Your task to perform on an android device: delete a single message in the gmail app Image 0: 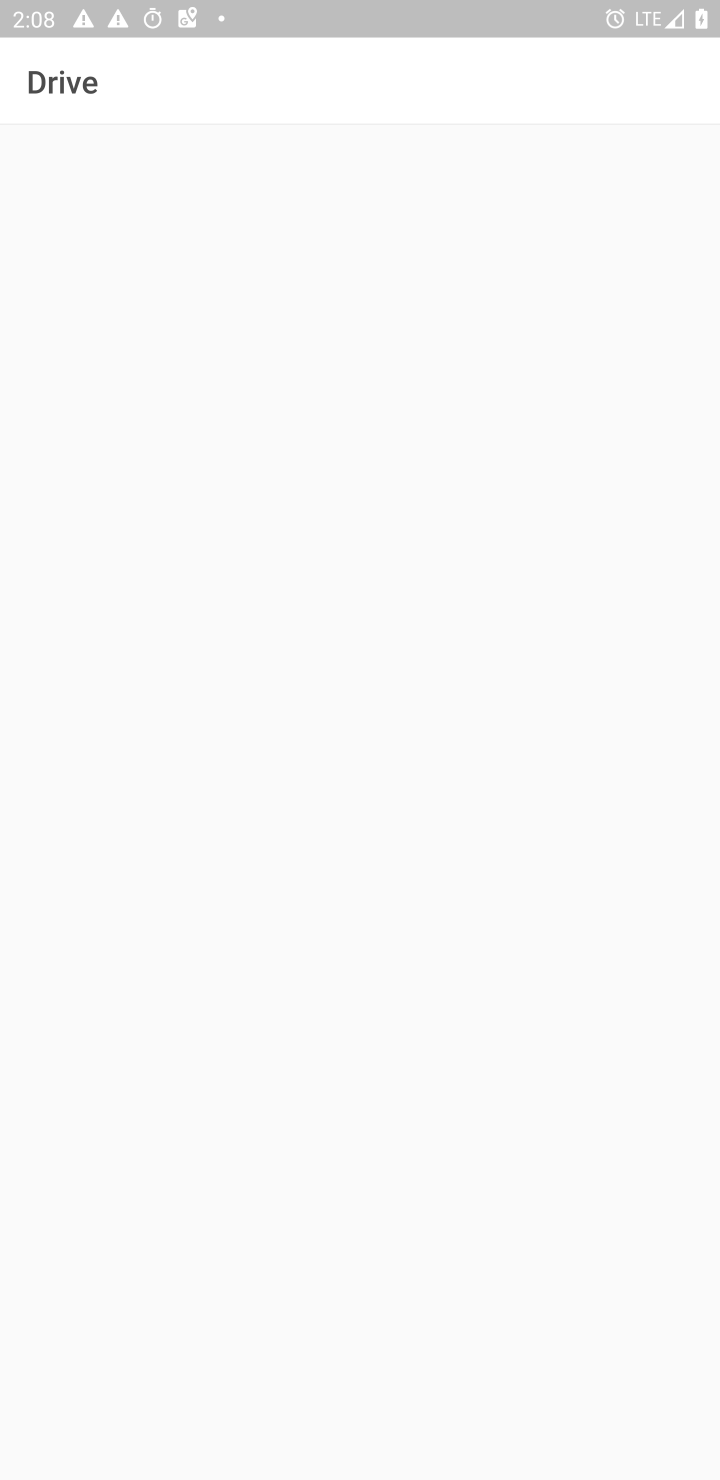
Step 0: press home button
Your task to perform on an android device: delete a single message in the gmail app Image 1: 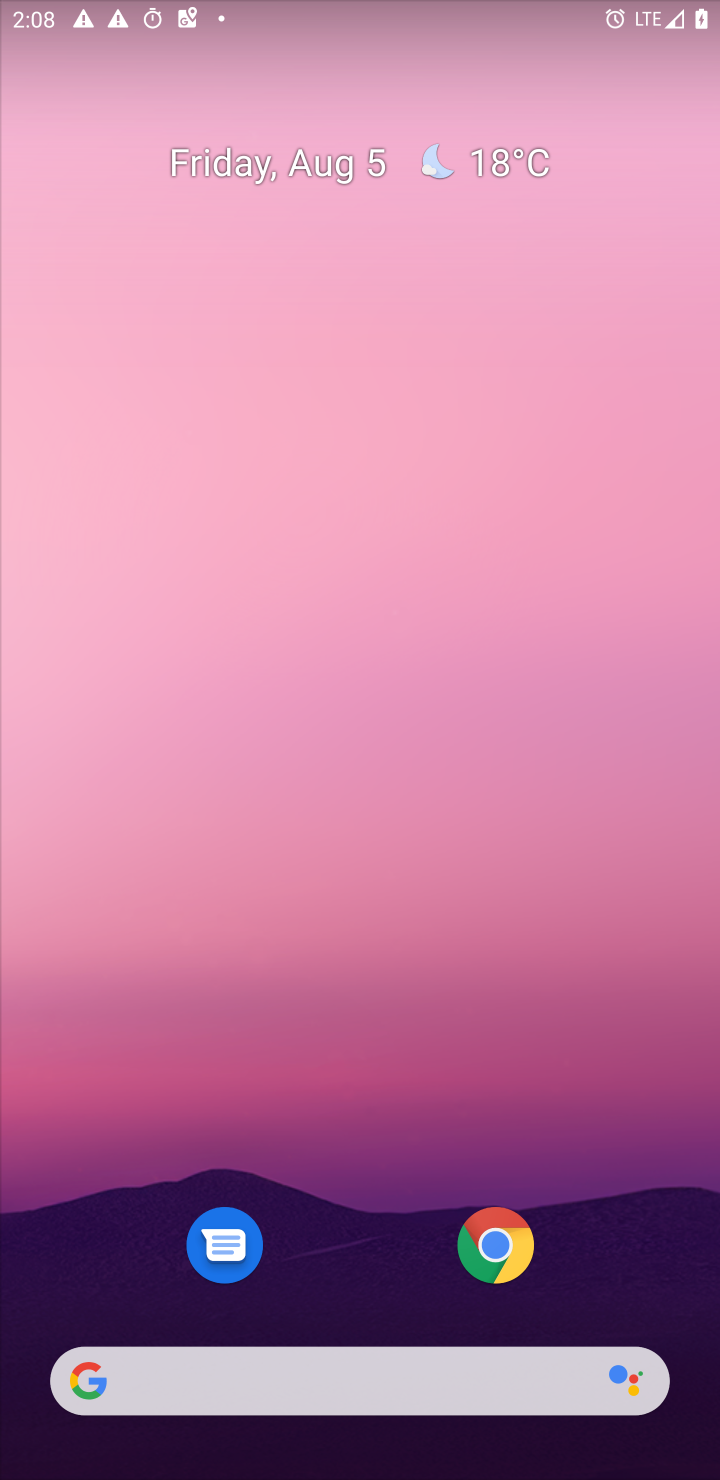
Step 1: drag from (363, 1278) to (495, 220)
Your task to perform on an android device: delete a single message in the gmail app Image 2: 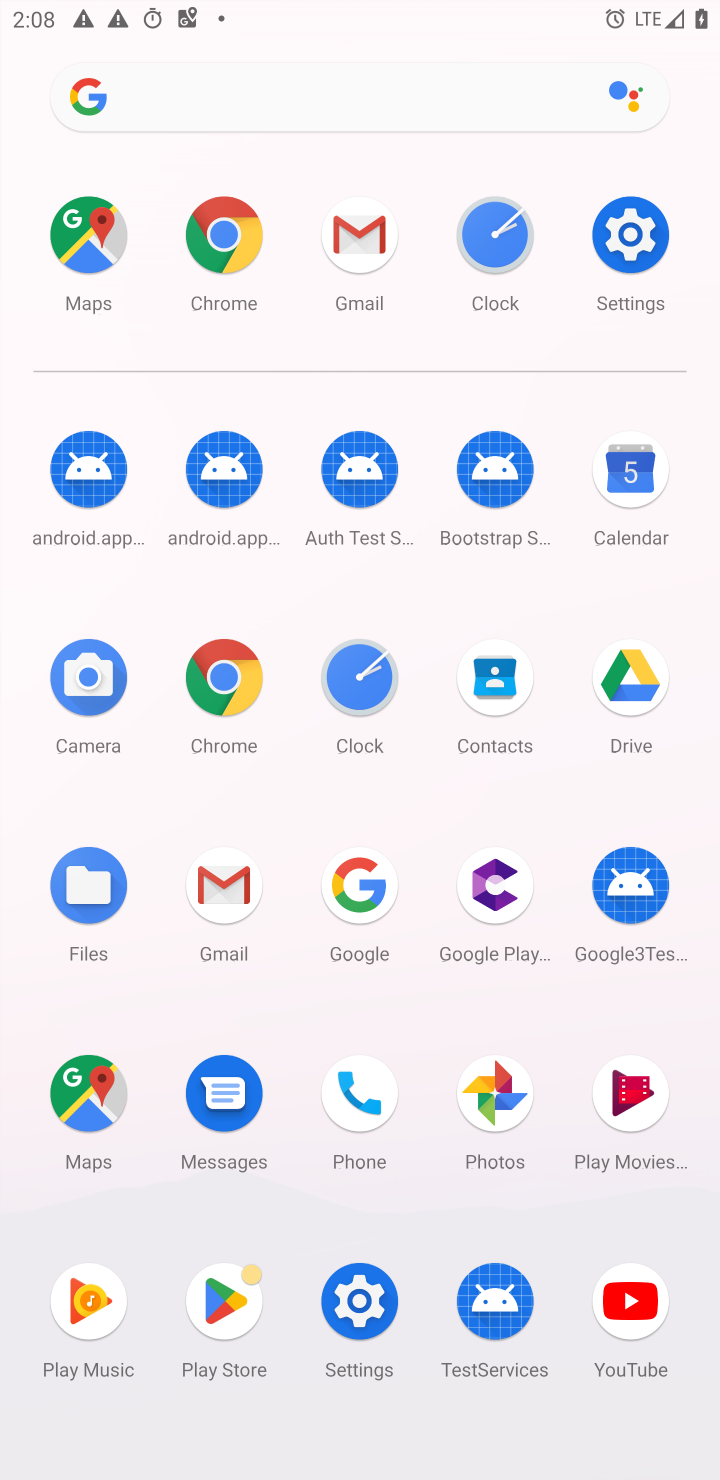
Step 2: click (364, 271)
Your task to perform on an android device: delete a single message in the gmail app Image 3: 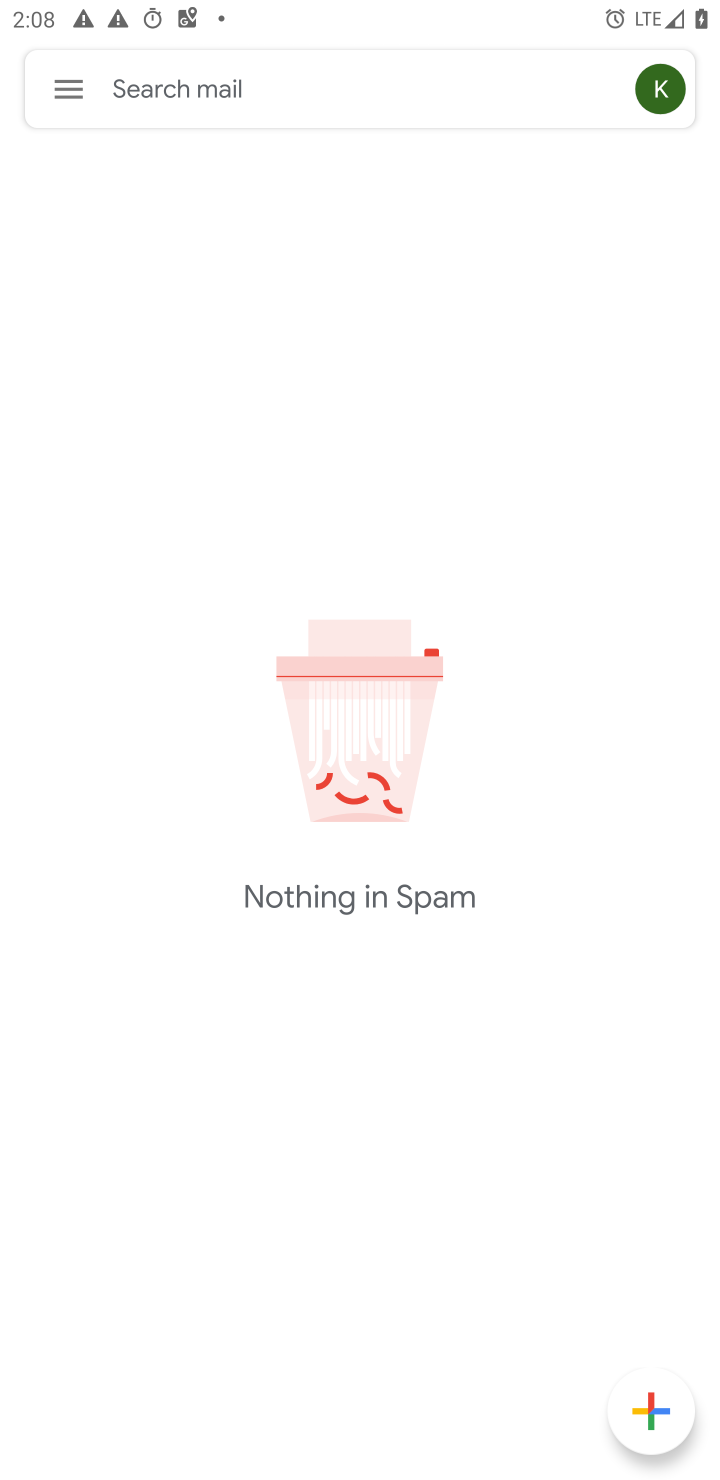
Step 3: click (69, 92)
Your task to perform on an android device: delete a single message in the gmail app Image 4: 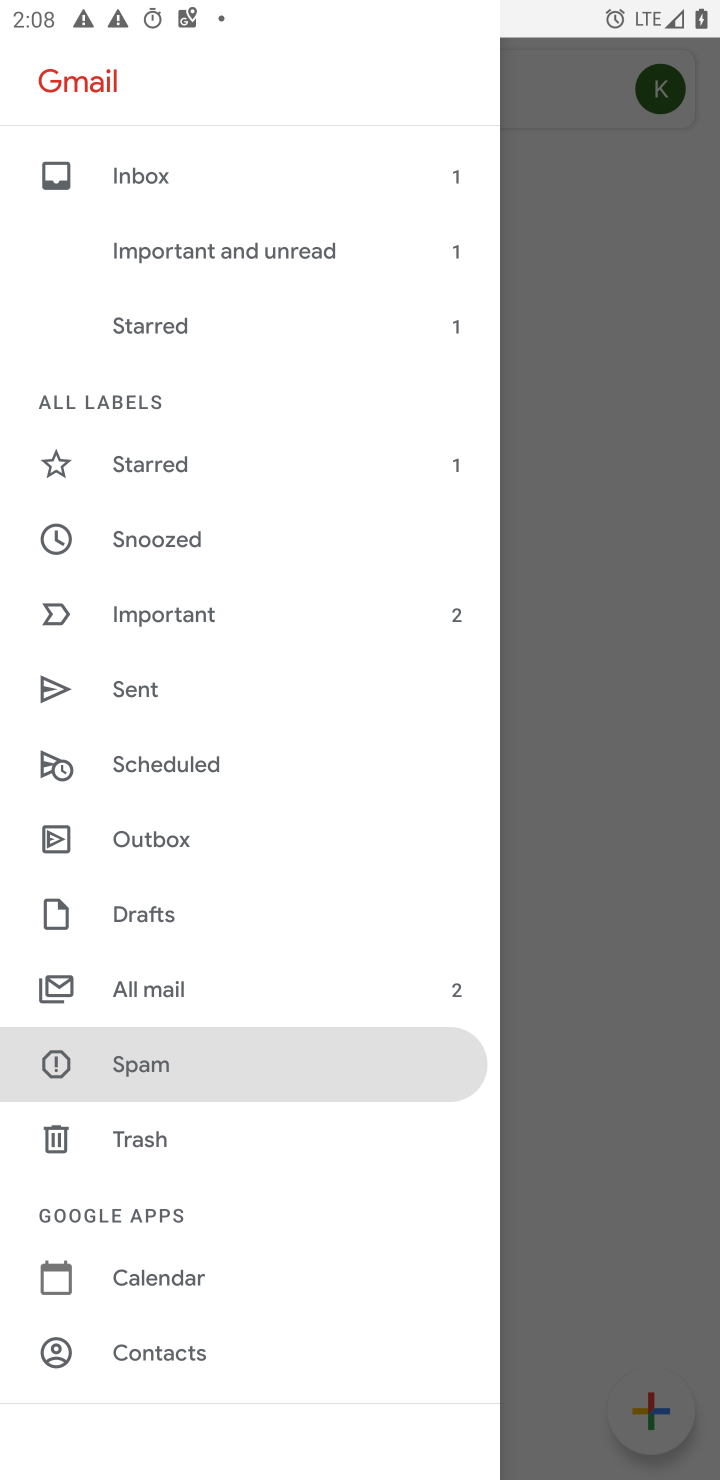
Step 4: click (156, 998)
Your task to perform on an android device: delete a single message in the gmail app Image 5: 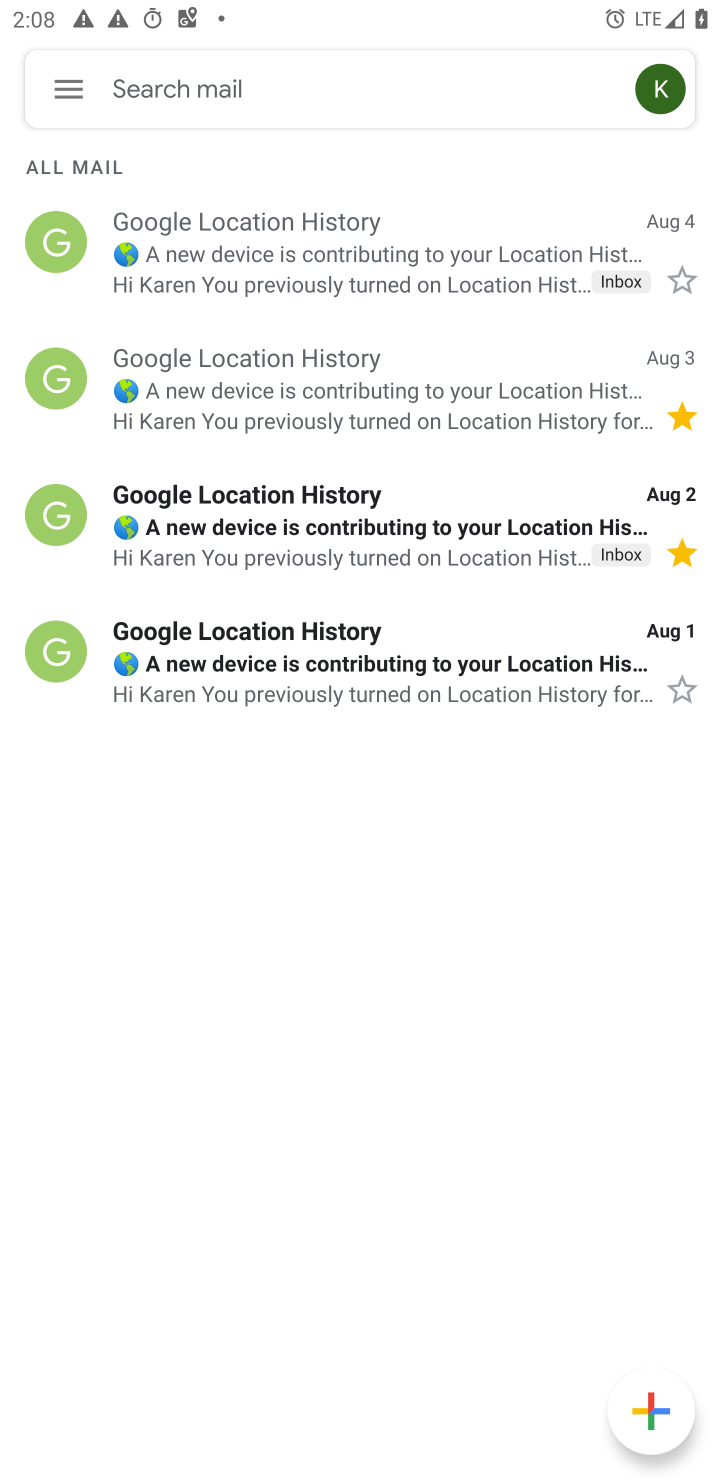
Step 5: click (341, 269)
Your task to perform on an android device: delete a single message in the gmail app Image 6: 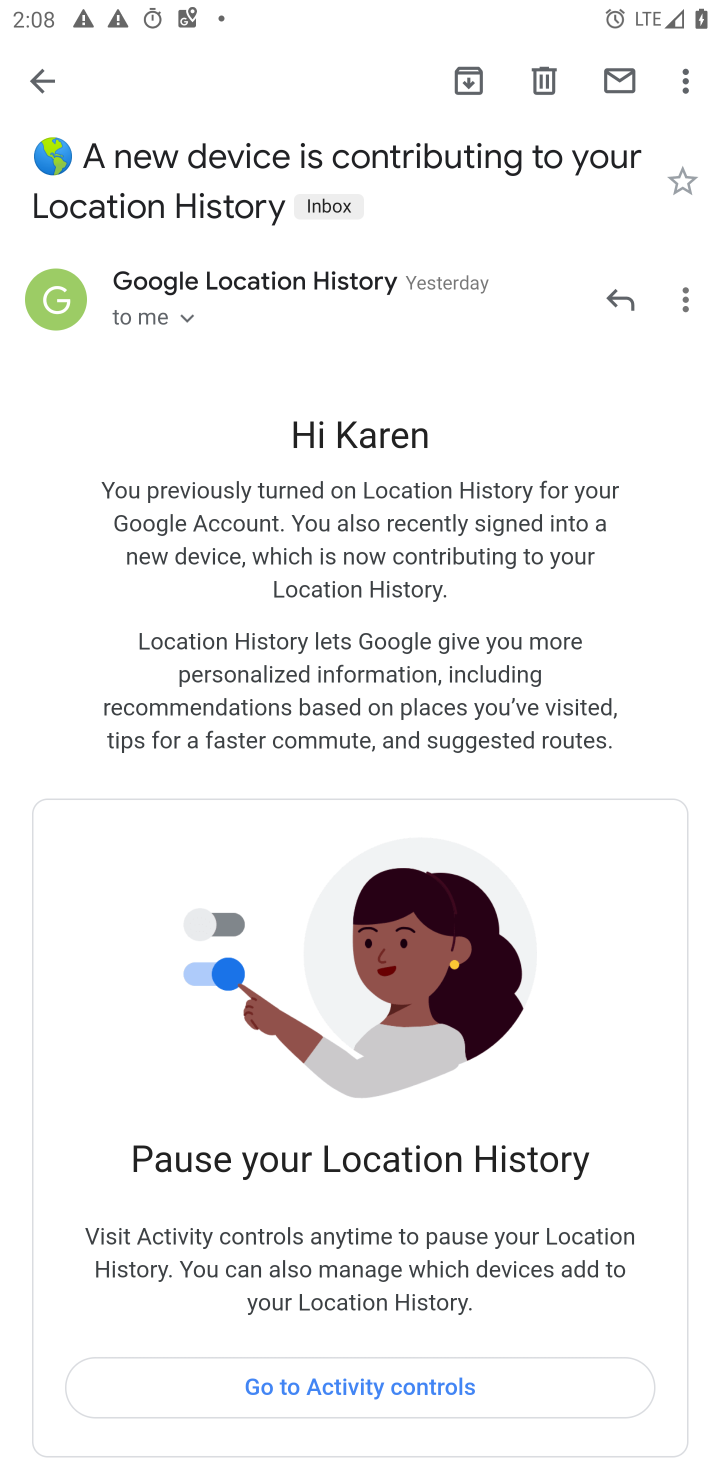
Step 6: click (546, 88)
Your task to perform on an android device: delete a single message in the gmail app Image 7: 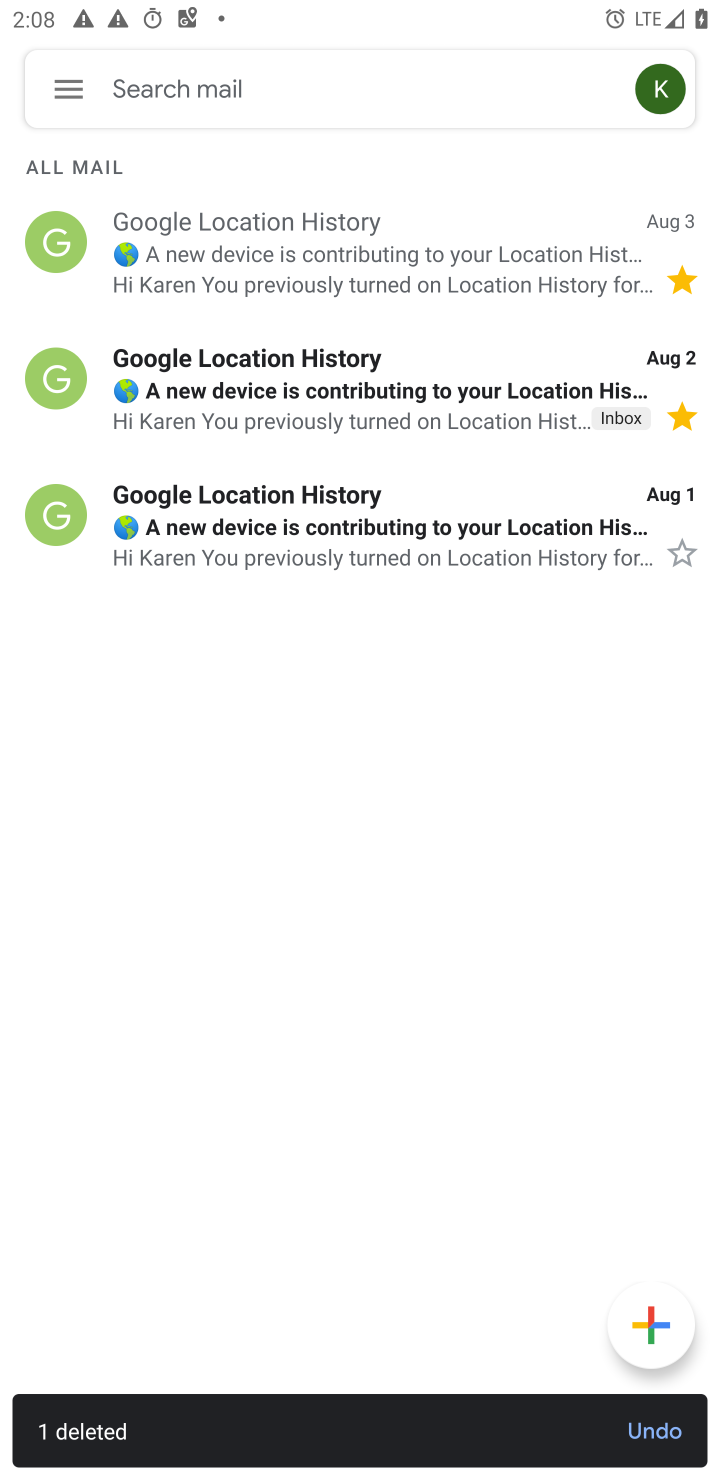
Step 7: task complete